Your task to perform on an android device: How do I get to the nearest Home Depot? Image 0: 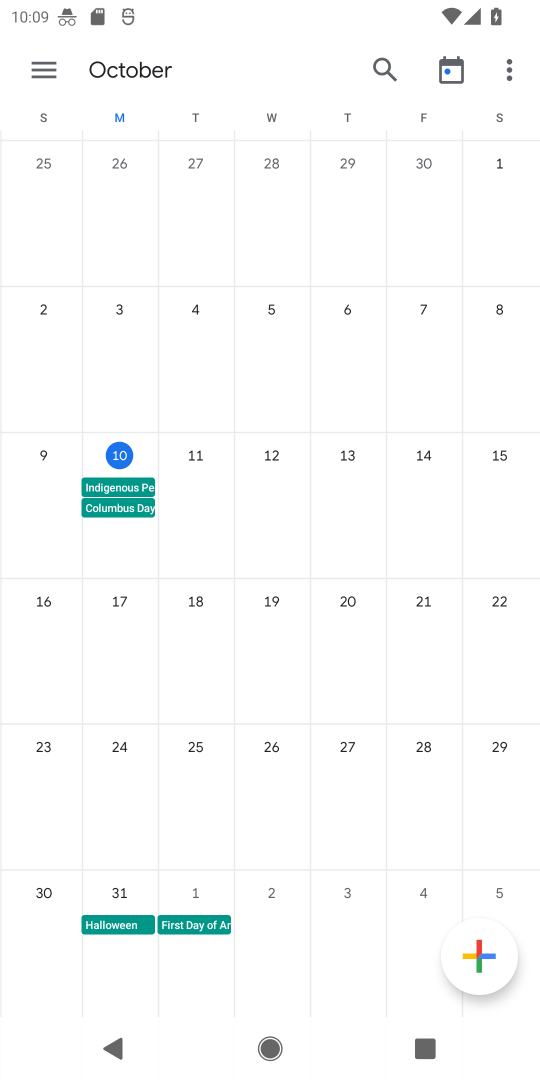
Step 0: press home button
Your task to perform on an android device: How do I get to the nearest Home Depot? Image 1: 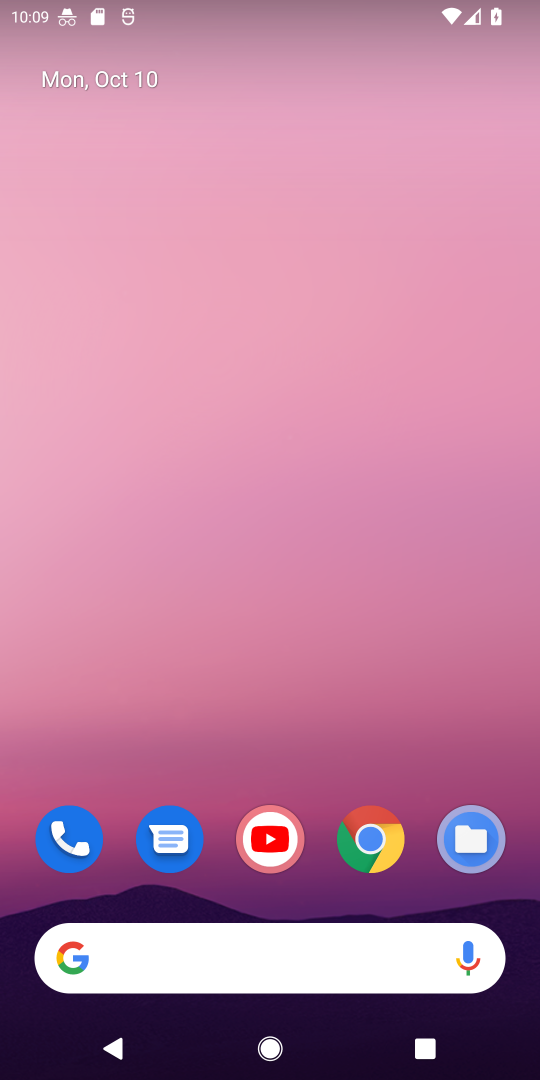
Step 1: drag from (318, 853) to (337, 141)
Your task to perform on an android device: How do I get to the nearest Home Depot? Image 2: 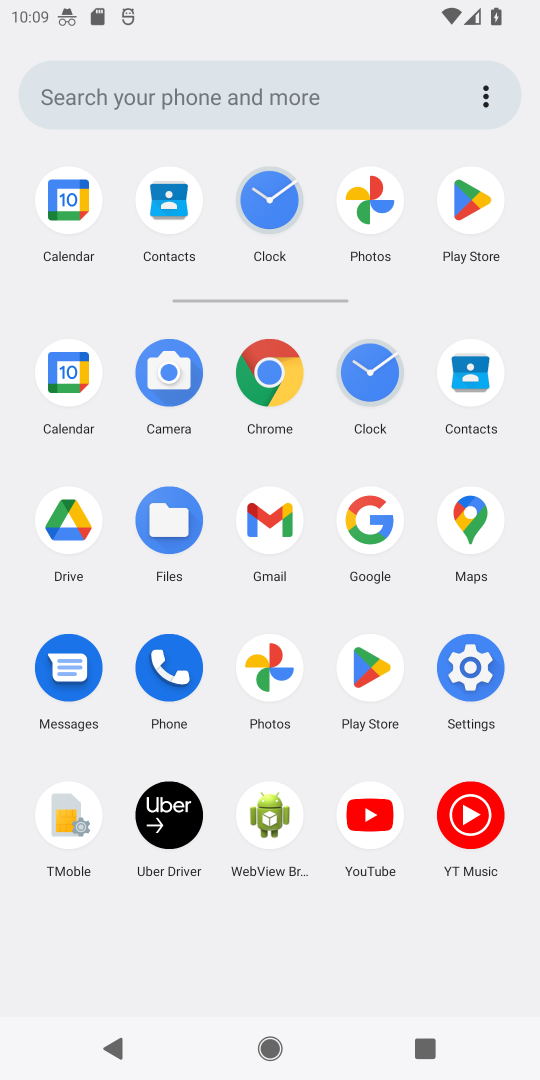
Step 2: click (275, 367)
Your task to perform on an android device: How do I get to the nearest Home Depot? Image 3: 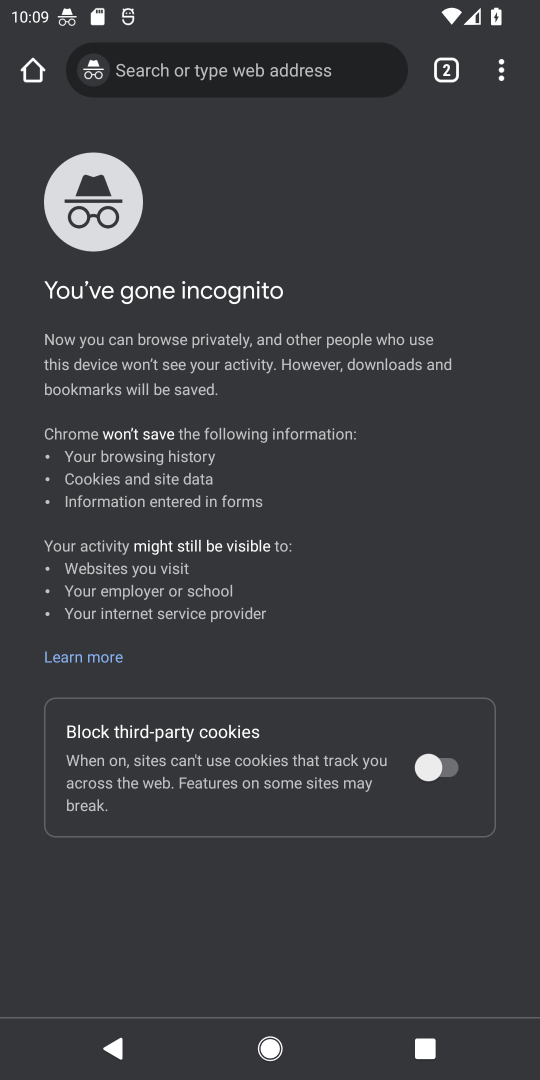
Step 3: click (266, 67)
Your task to perform on an android device: How do I get to the nearest Home Depot? Image 4: 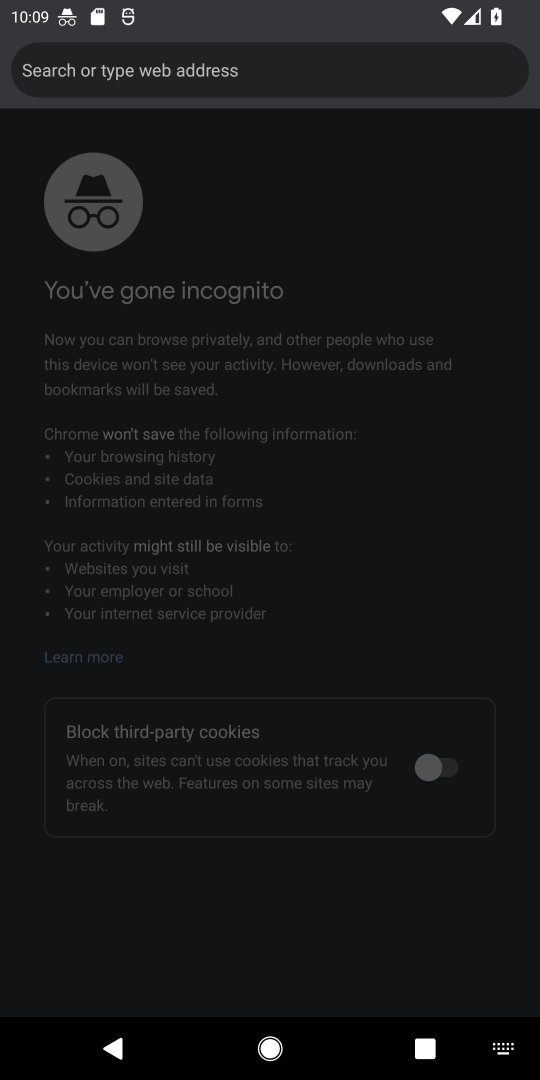
Step 4: type "How"
Your task to perform on an android device: How do I get to the nearest Home Depot? Image 5: 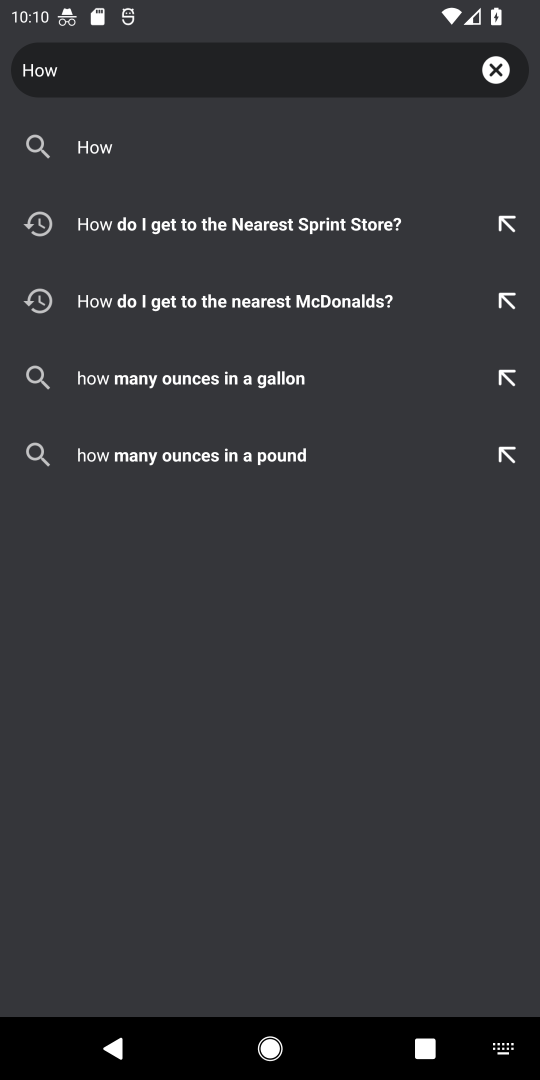
Step 5: type " do I get to the nearest Home Depot?"
Your task to perform on an android device: How do I get to the nearest Home Depot? Image 6: 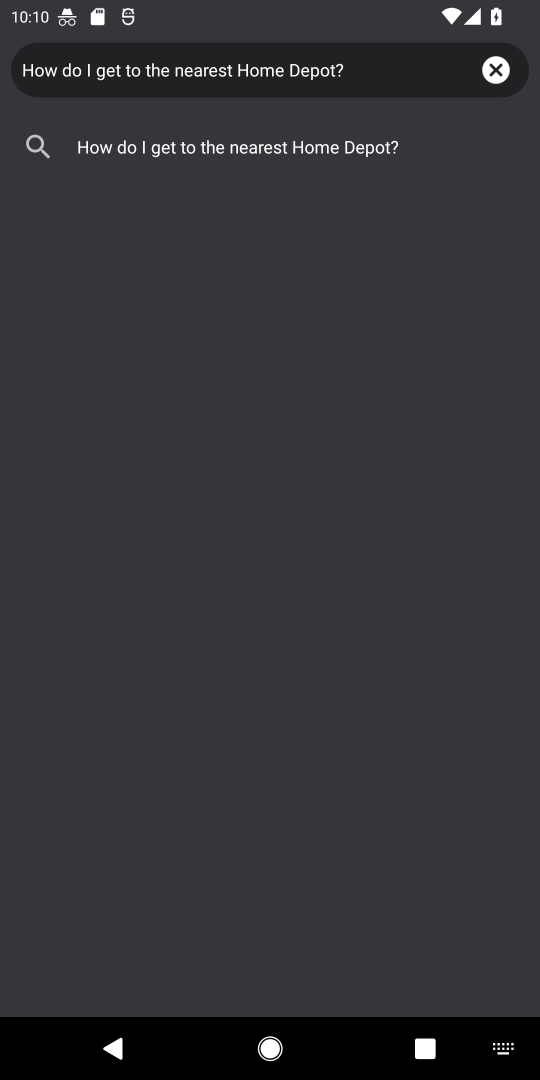
Step 6: press enter
Your task to perform on an android device: How do I get to the nearest Home Depot? Image 7: 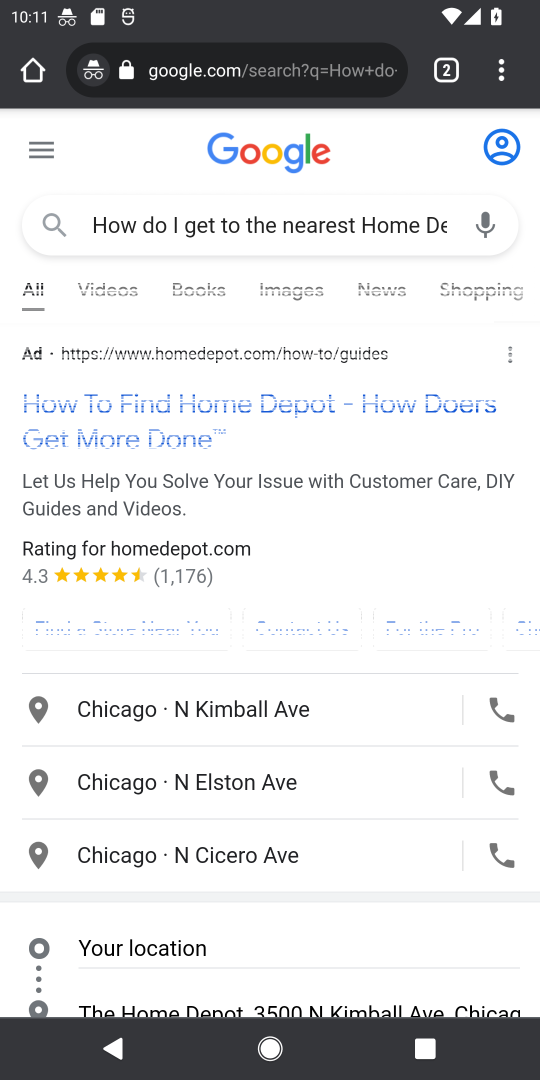
Step 7: task complete